Your task to perform on an android device: check data usage Image 0: 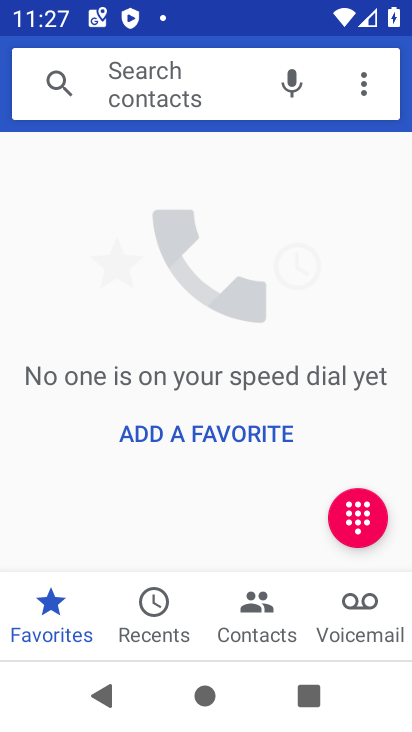
Step 0: press home button
Your task to perform on an android device: check data usage Image 1: 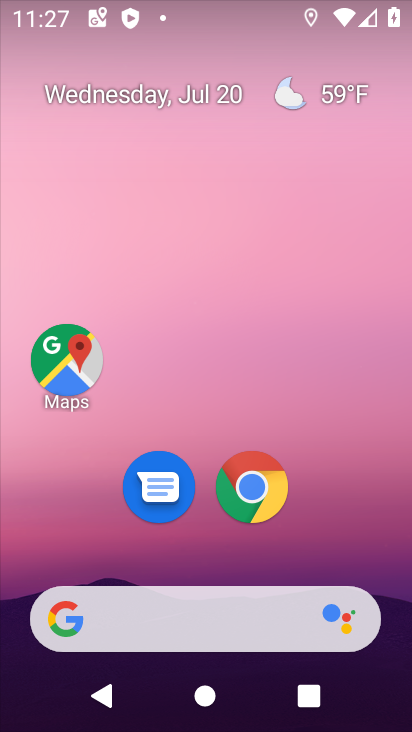
Step 1: drag from (383, 541) to (390, 93)
Your task to perform on an android device: check data usage Image 2: 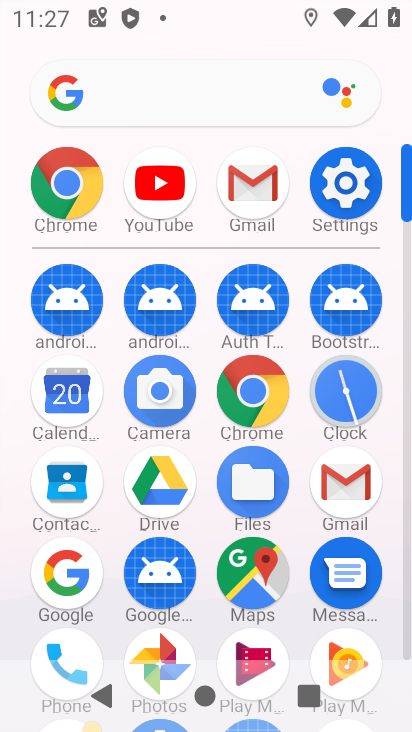
Step 2: click (353, 188)
Your task to perform on an android device: check data usage Image 3: 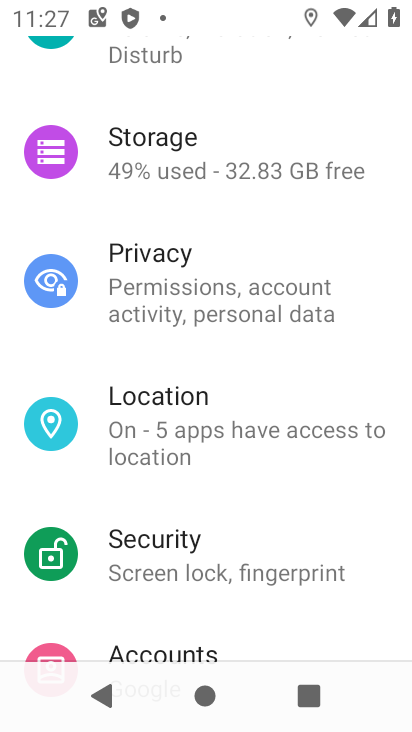
Step 3: drag from (367, 221) to (363, 310)
Your task to perform on an android device: check data usage Image 4: 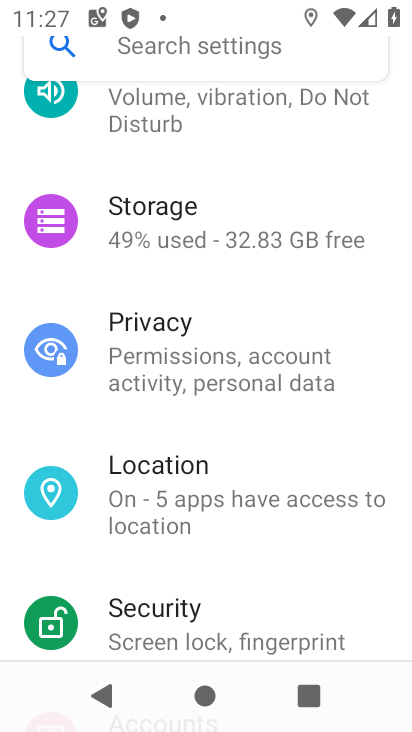
Step 4: drag from (387, 197) to (366, 324)
Your task to perform on an android device: check data usage Image 5: 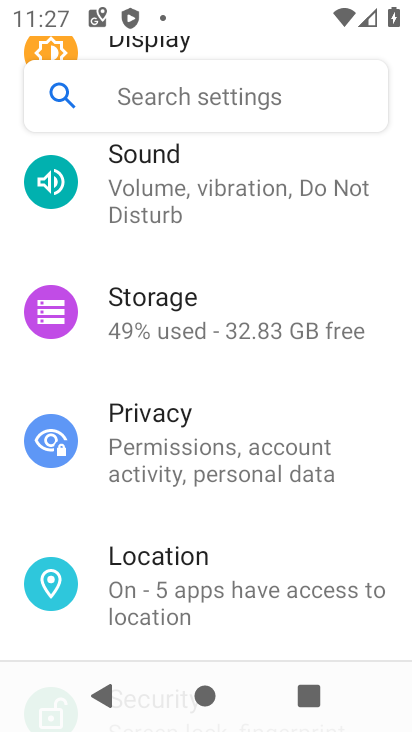
Step 5: drag from (367, 207) to (370, 341)
Your task to perform on an android device: check data usage Image 6: 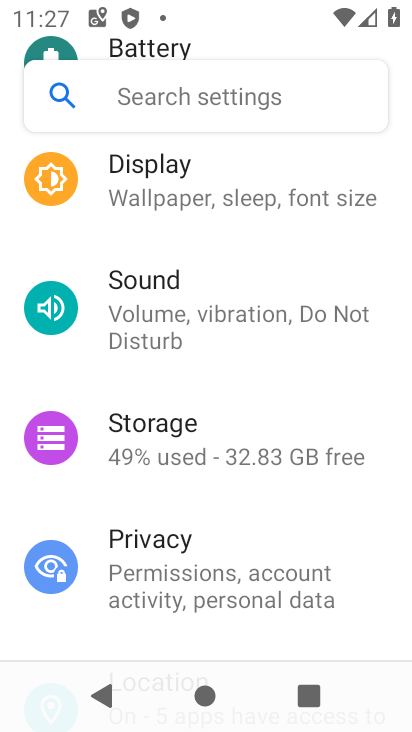
Step 6: drag from (373, 243) to (371, 356)
Your task to perform on an android device: check data usage Image 7: 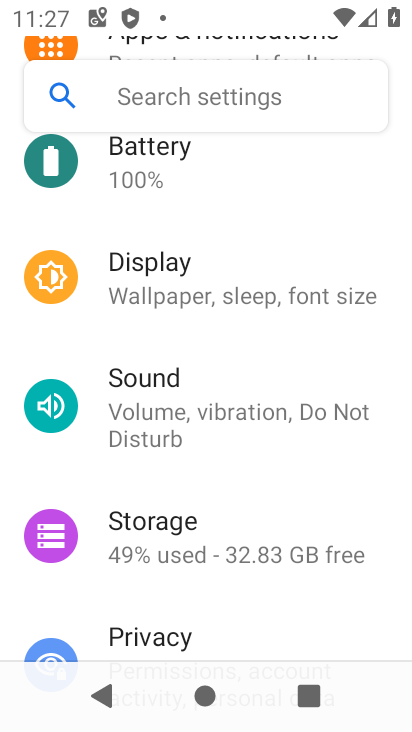
Step 7: drag from (380, 202) to (376, 361)
Your task to perform on an android device: check data usage Image 8: 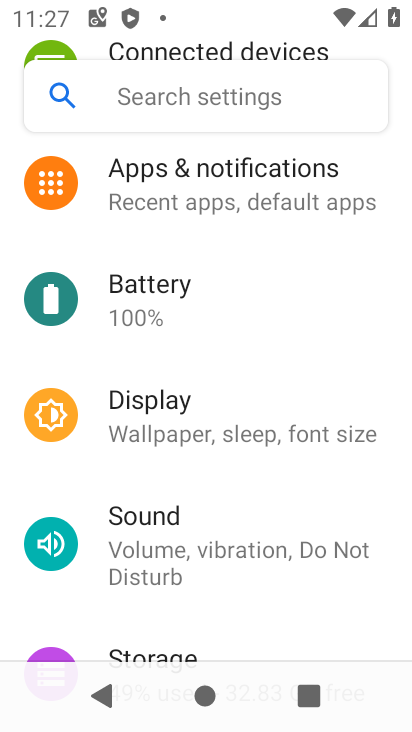
Step 8: drag from (367, 254) to (359, 353)
Your task to perform on an android device: check data usage Image 9: 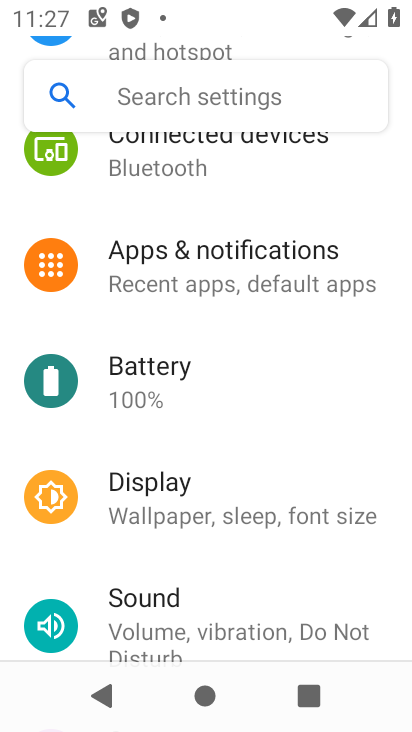
Step 9: drag from (385, 210) to (384, 329)
Your task to perform on an android device: check data usage Image 10: 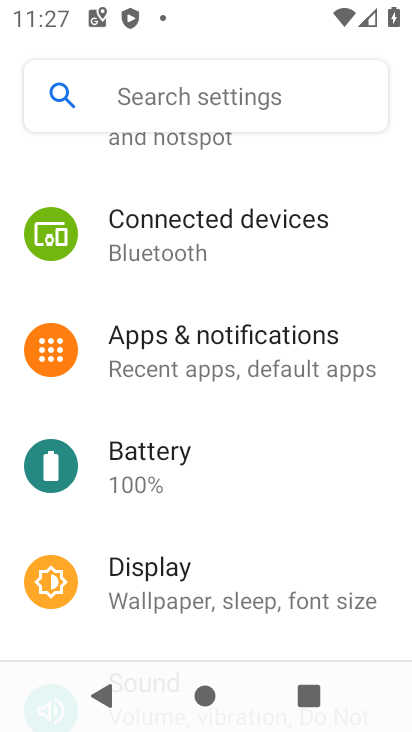
Step 10: drag from (395, 208) to (378, 343)
Your task to perform on an android device: check data usage Image 11: 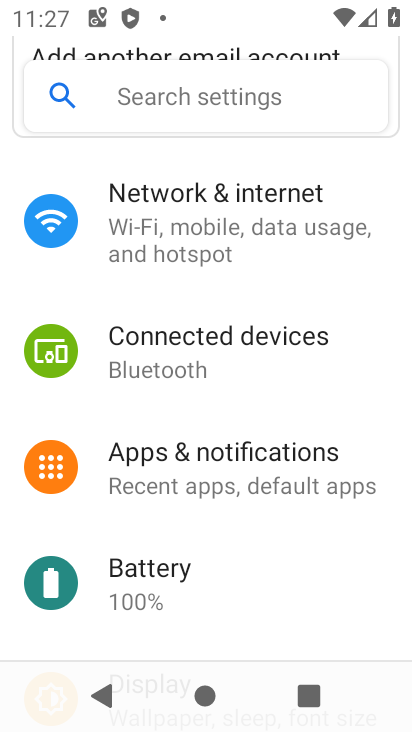
Step 11: drag from (371, 263) to (368, 396)
Your task to perform on an android device: check data usage Image 12: 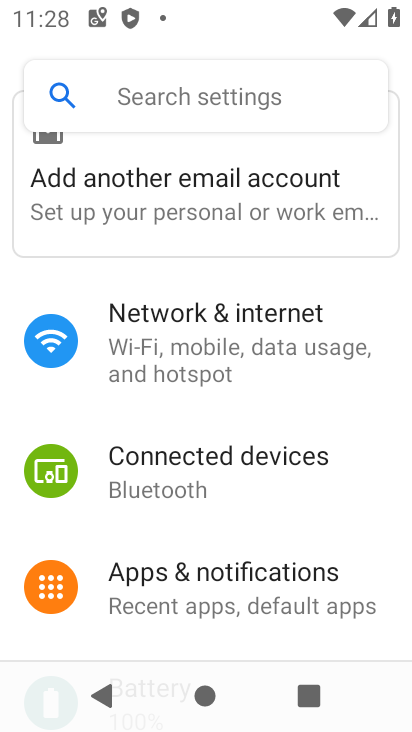
Step 12: click (342, 360)
Your task to perform on an android device: check data usage Image 13: 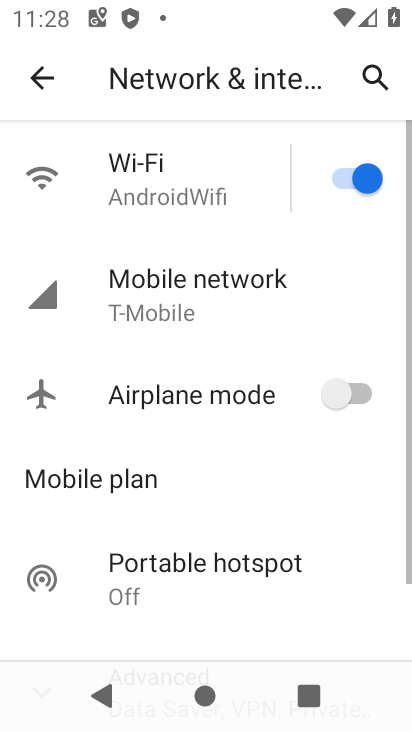
Step 13: click (284, 320)
Your task to perform on an android device: check data usage Image 14: 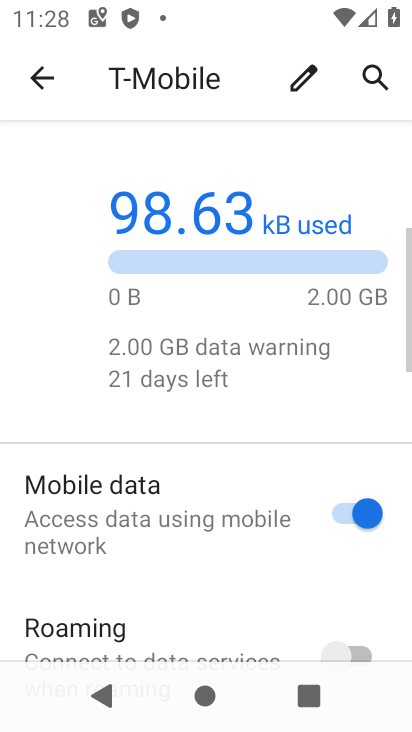
Step 14: drag from (271, 439) to (263, 339)
Your task to perform on an android device: check data usage Image 15: 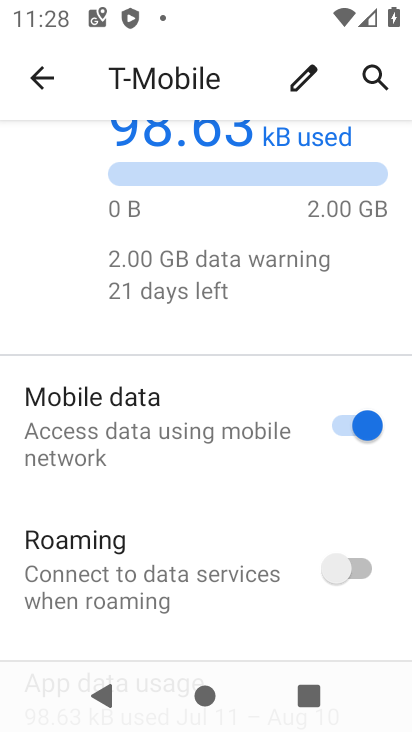
Step 15: drag from (244, 458) to (255, 383)
Your task to perform on an android device: check data usage Image 16: 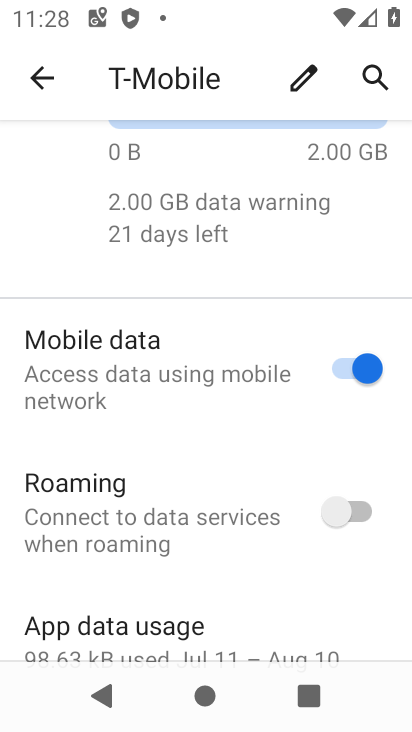
Step 16: drag from (224, 504) to (242, 374)
Your task to perform on an android device: check data usage Image 17: 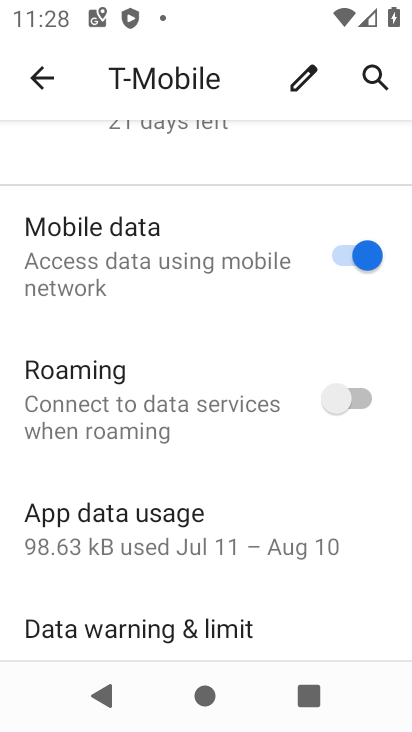
Step 17: drag from (247, 484) to (271, 332)
Your task to perform on an android device: check data usage Image 18: 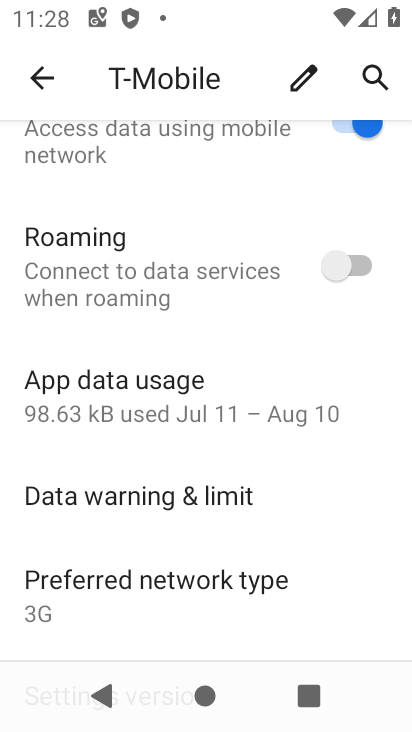
Step 18: click (263, 378)
Your task to perform on an android device: check data usage Image 19: 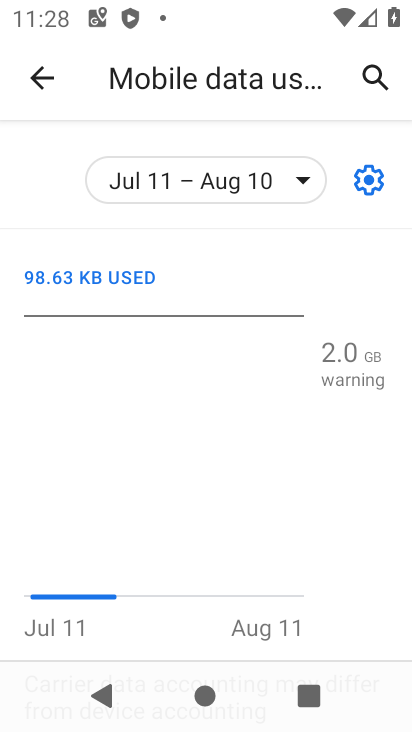
Step 19: task complete